Your task to perform on an android device: open app "Upside-Cash back on gas & food" (install if not already installed) and go to login screen Image 0: 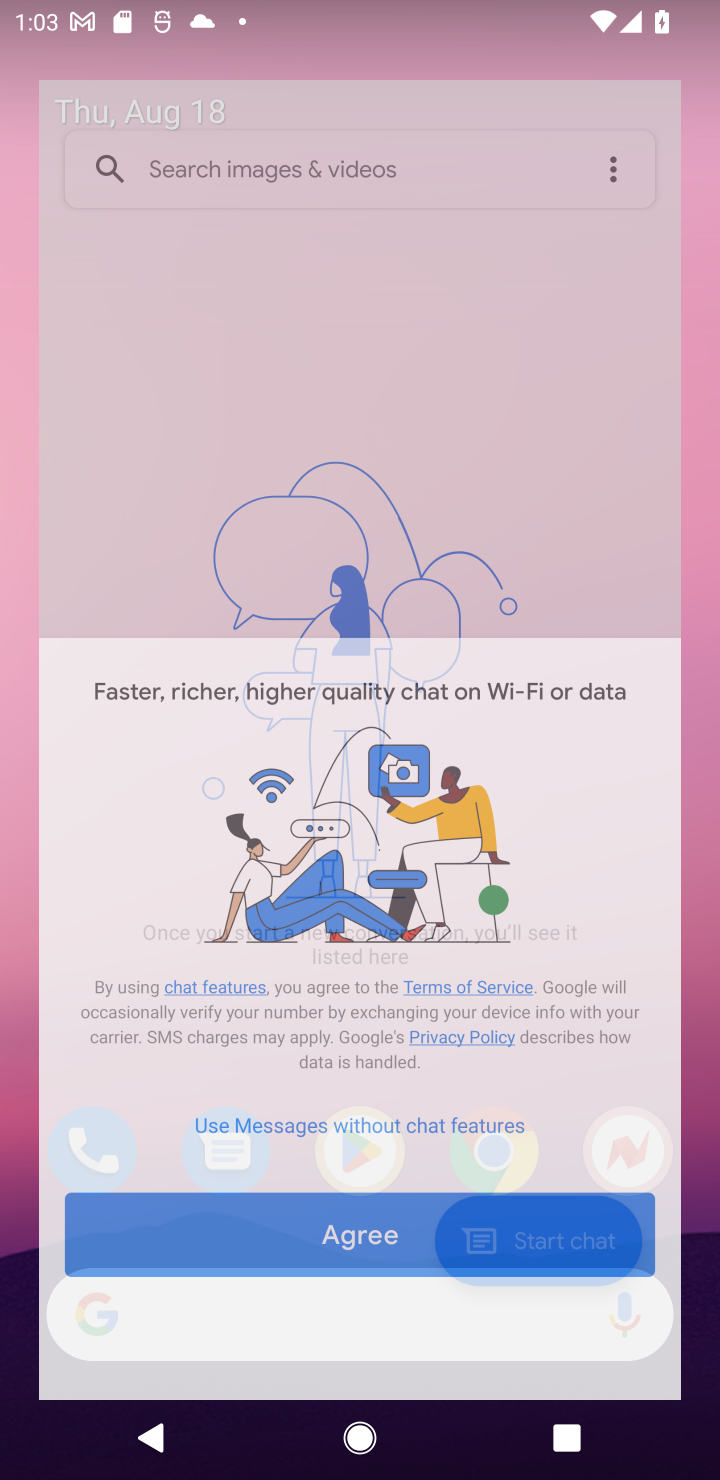
Step 0: click (349, 1128)
Your task to perform on an android device: open app "Upside-Cash back on gas & food" (install if not already installed) and go to login screen Image 1: 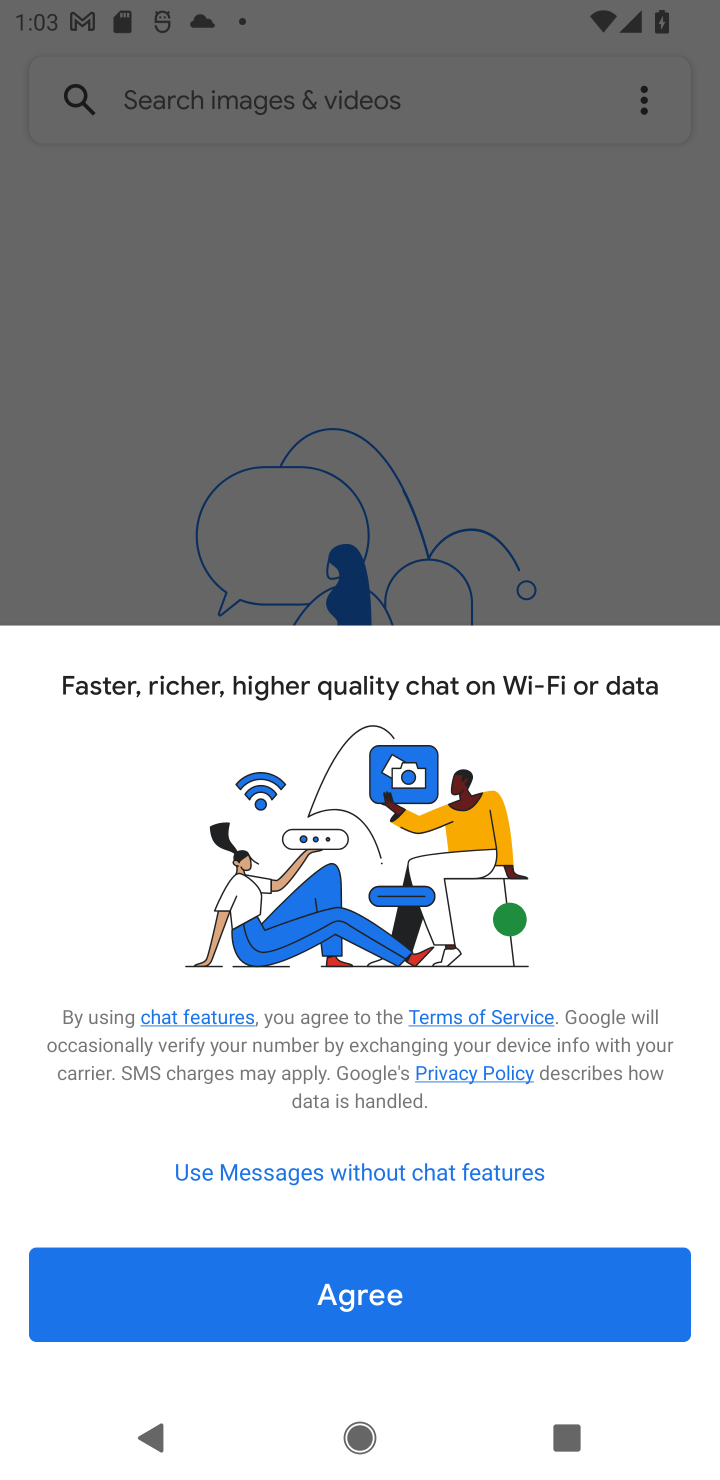
Step 1: press back button
Your task to perform on an android device: open app "Upside-Cash back on gas & food" (install if not already installed) and go to login screen Image 2: 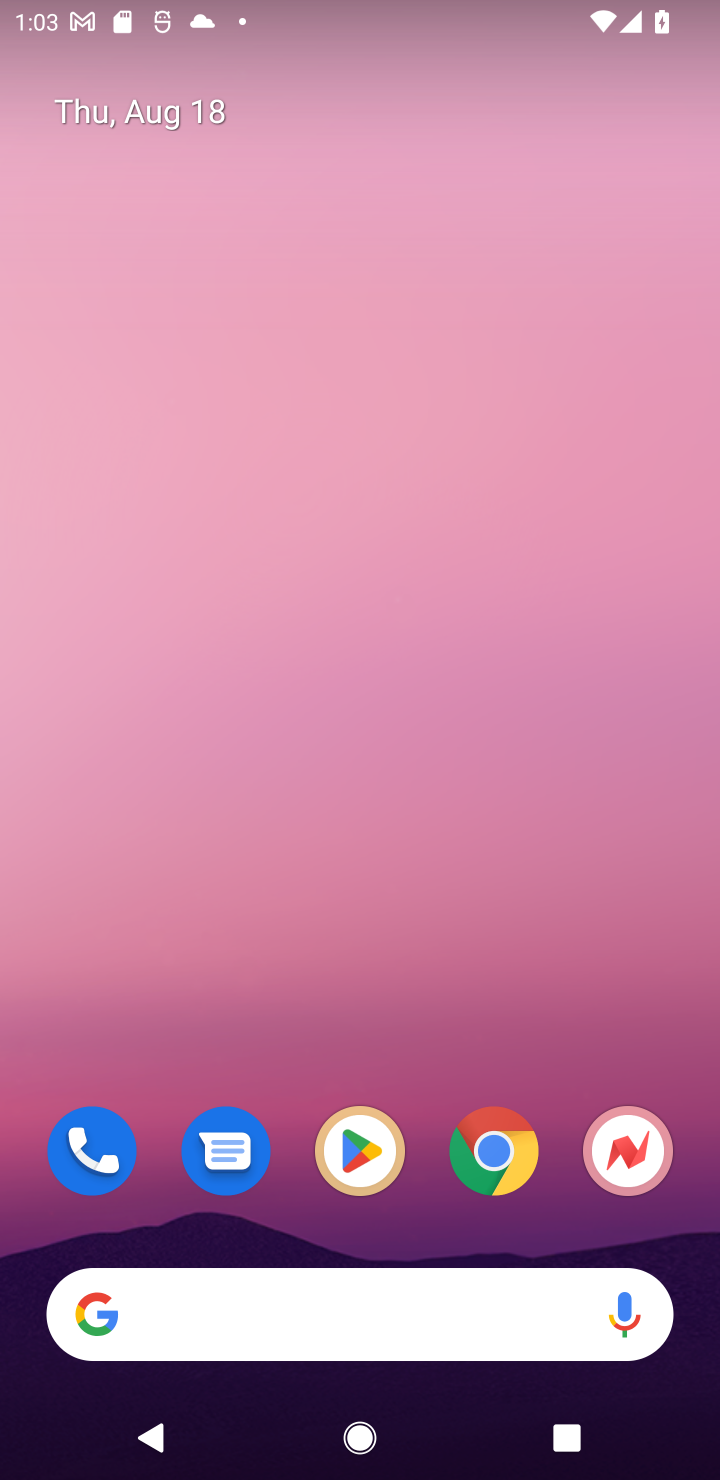
Step 2: click (359, 1151)
Your task to perform on an android device: open app "Upside-Cash back on gas & food" (install if not already installed) and go to login screen Image 3: 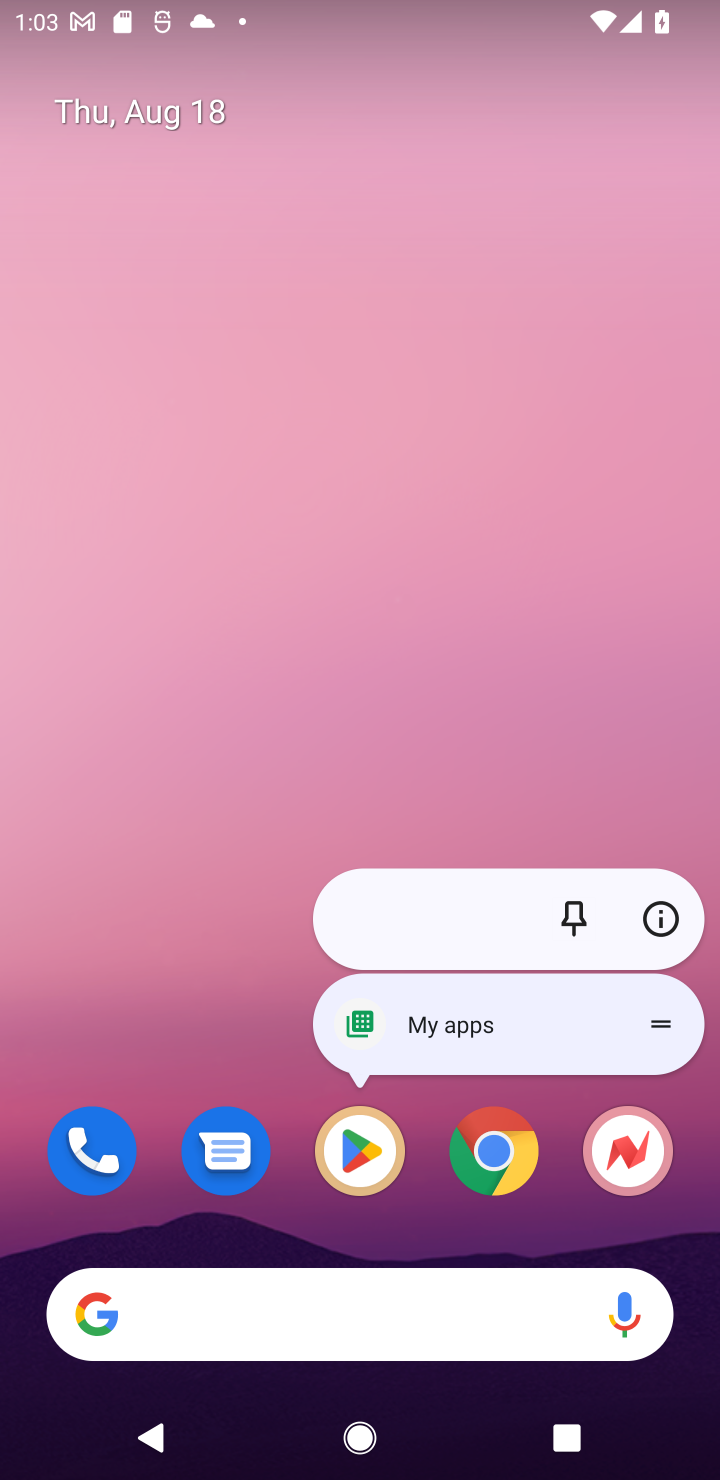
Step 3: click (359, 1157)
Your task to perform on an android device: open app "Upside-Cash back on gas & food" (install if not already installed) and go to login screen Image 4: 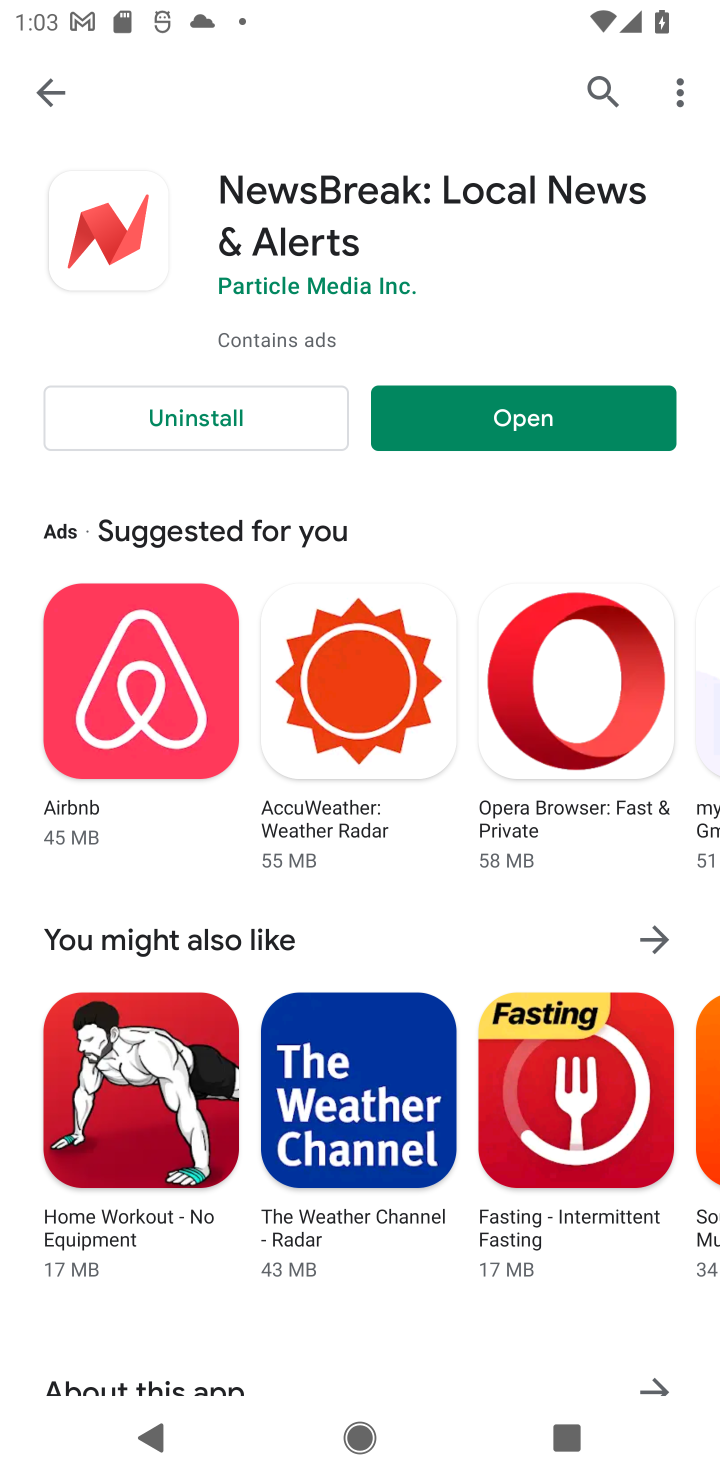
Step 4: click (39, 89)
Your task to perform on an android device: open app "Upside-Cash back on gas & food" (install if not already installed) and go to login screen Image 5: 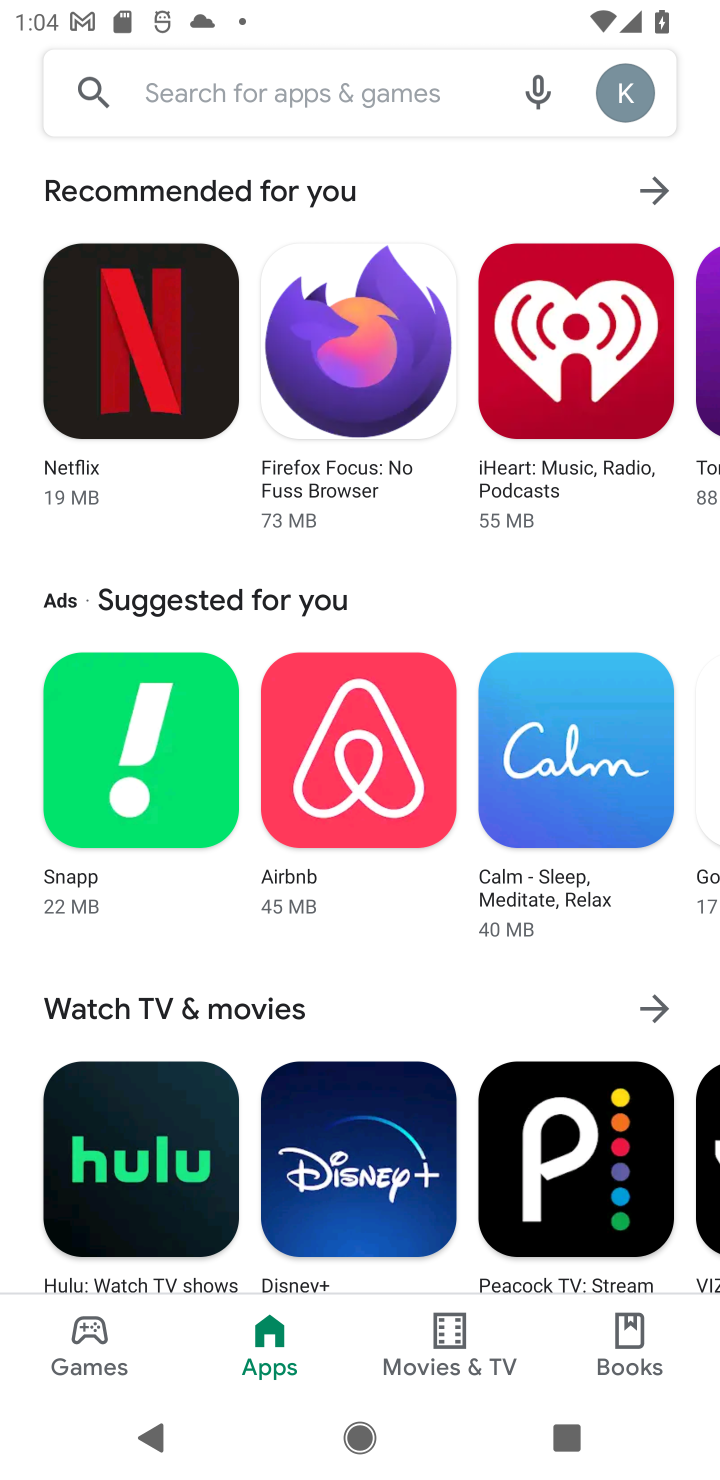
Step 5: click (277, 84)
Your task to perform on an android device: open app "Upside-Cash back on gas & food" (install if not already installed) and go to login screen Image 6: 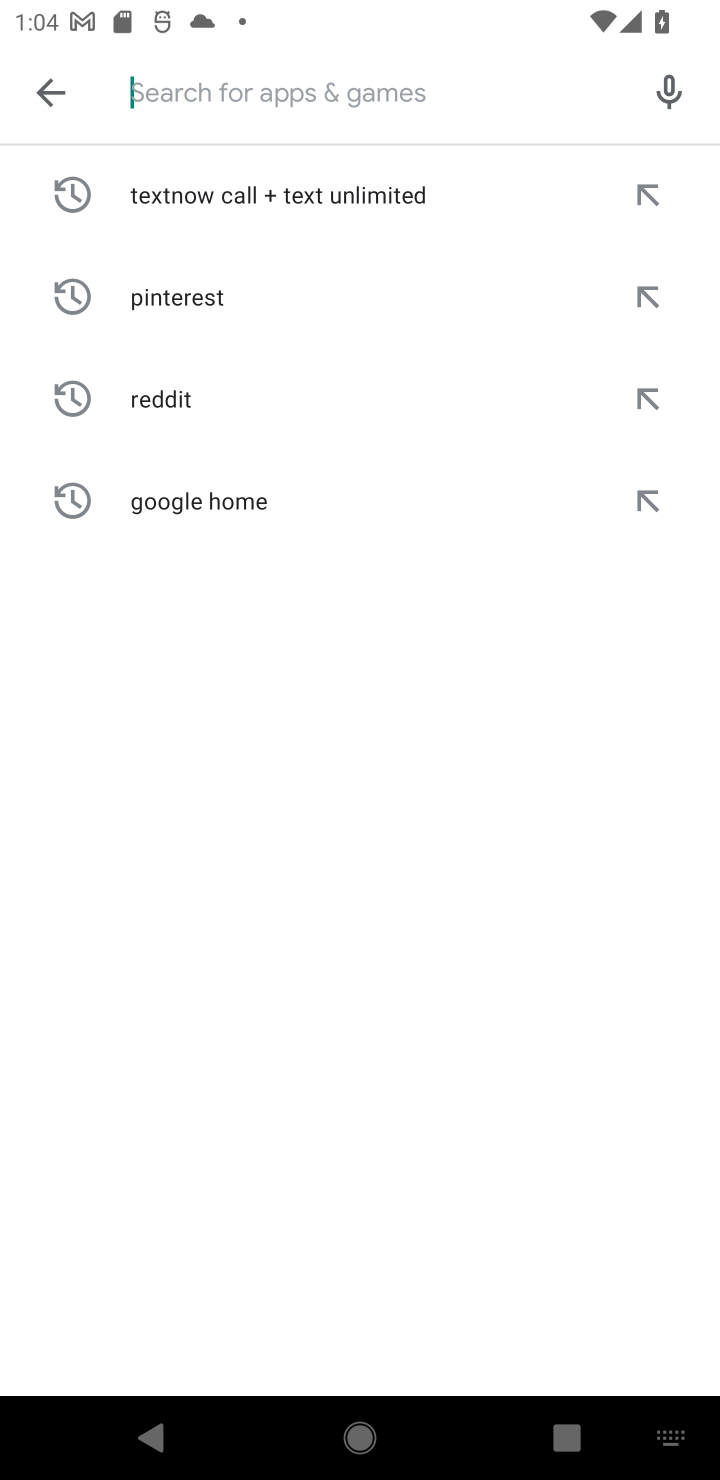
Step 6: type "Upside-Cash back on gas & food"
Your task to perform on an android device: open app "Upside-Cash back on gas & food" (install if not already installed) and go to login screen Image 7: 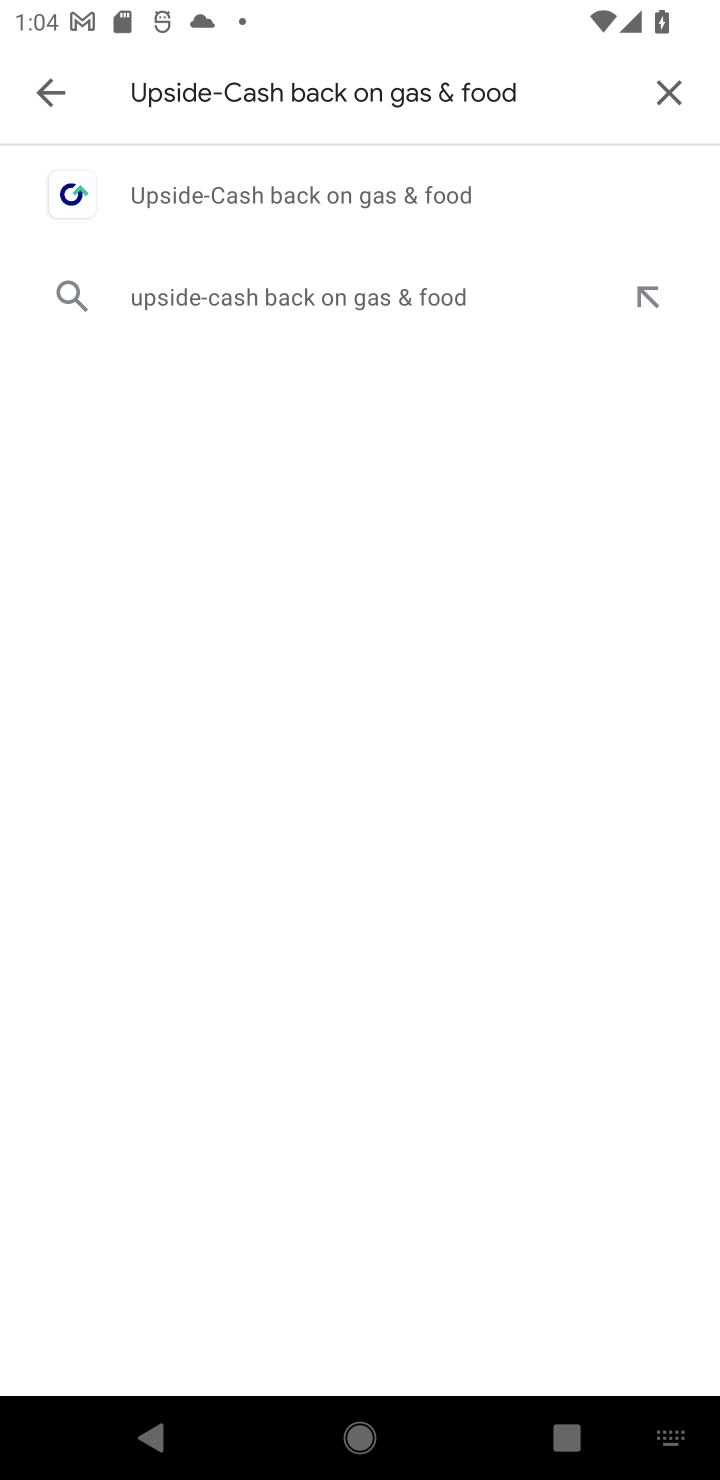
Step 7: click (428, 201)
Your task to perform on an android device: open app "Upside-Cash back on gas & food" (install if not already installed) and go to login screen Image 8: 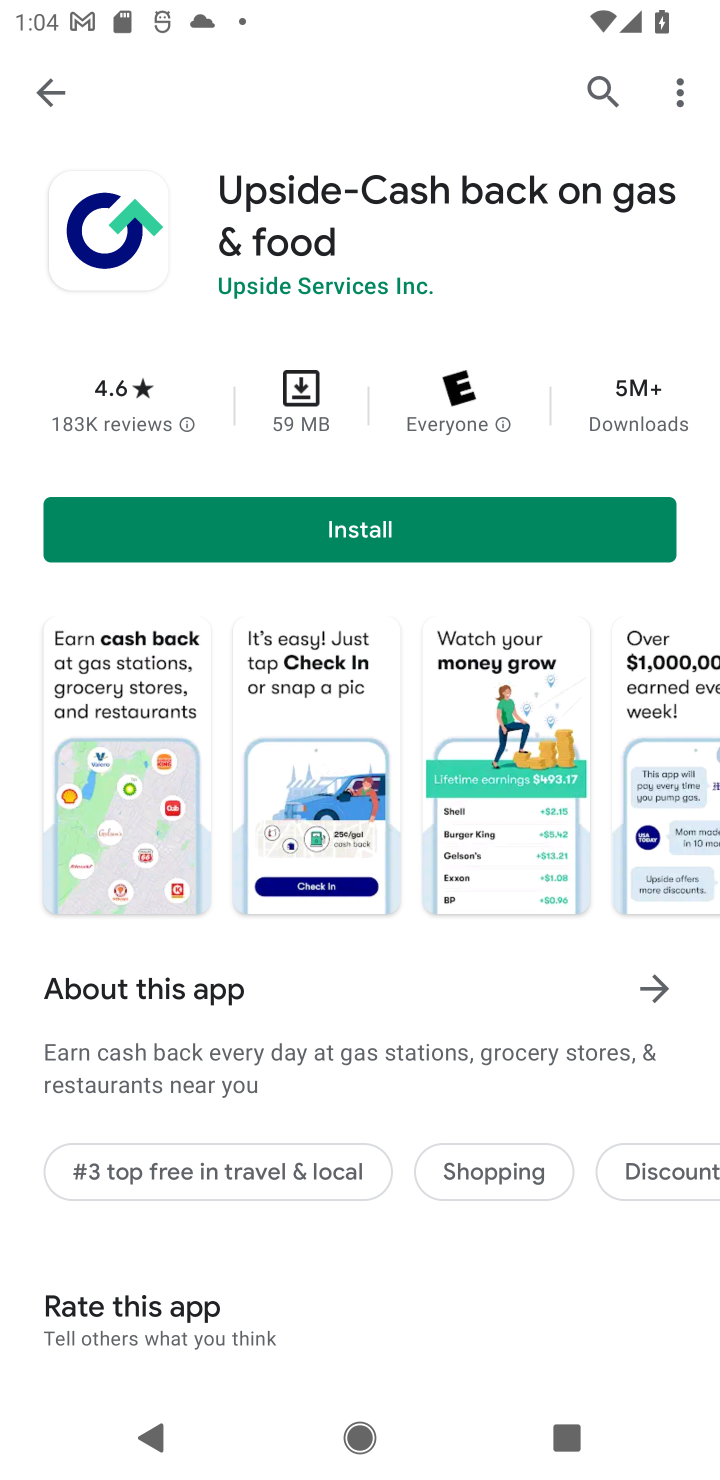
Step 8: click (318, 525)
Your task to perform on an android device: open app "Upside-Cash back on gas & food" (install if not already installed) and go to login screen Image 9: 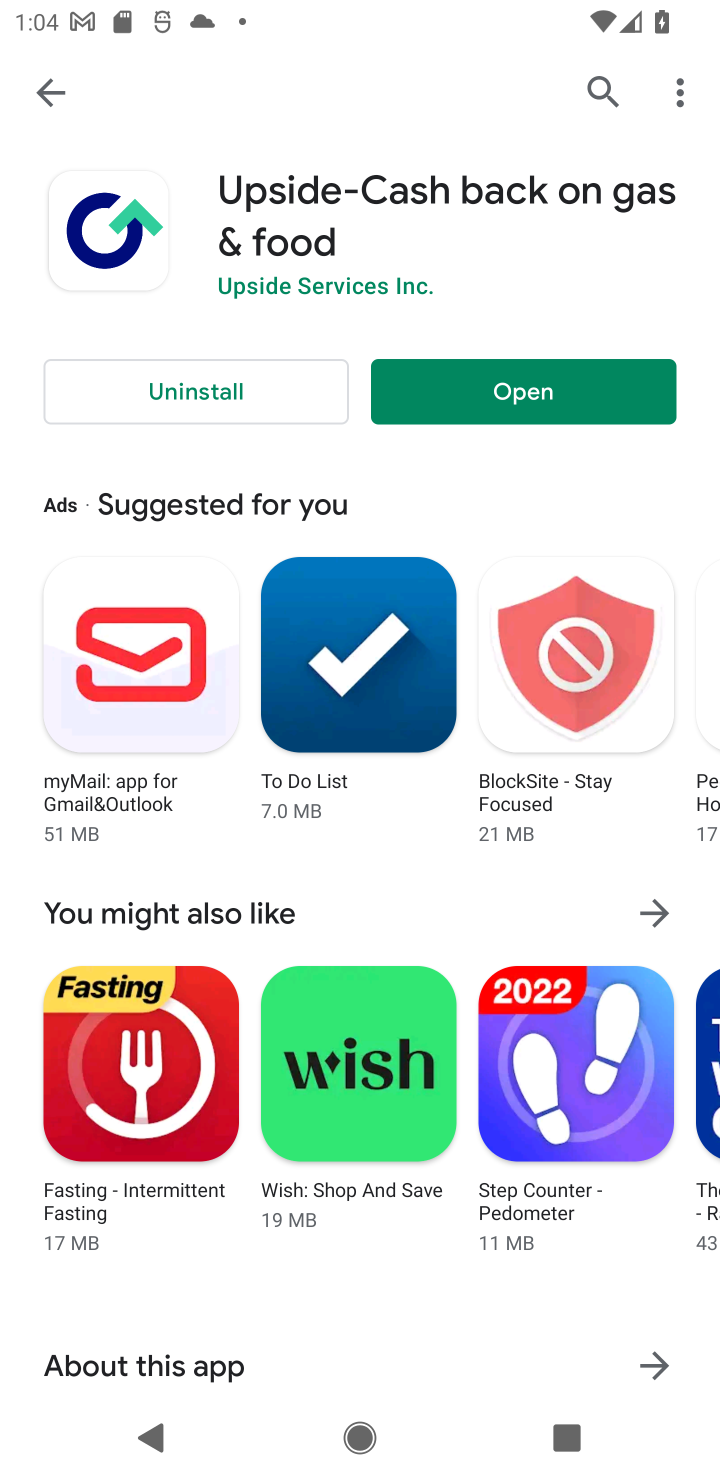
Step 9: click (503, 384)
Your task to perform on an android device: open app "Upside-Cash back on gas & food" (install if not already installed) and go to login screen Image 10: 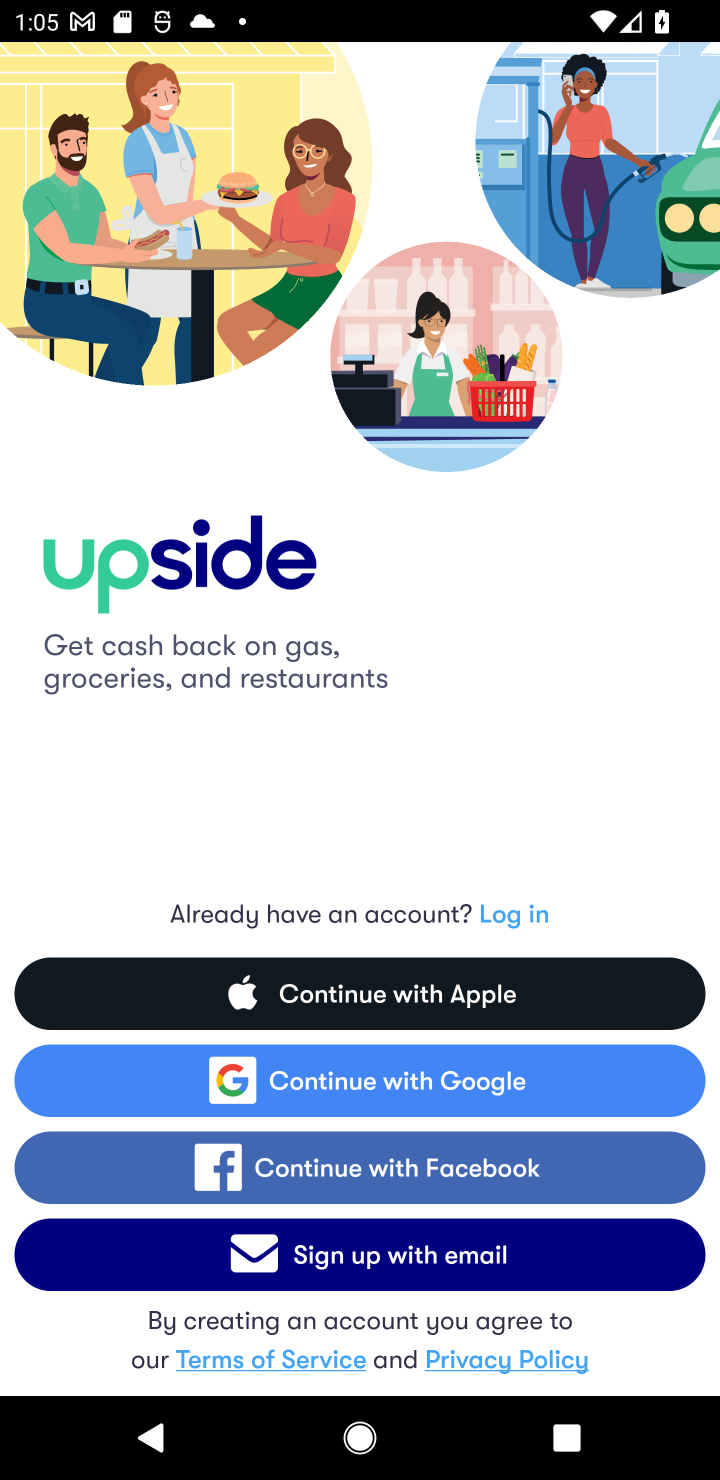
Step 10: click (511, 905)
Your task to perform on an android device: open app "Upside-Cash back on gas & food" (install if not already installed) and go to login screen Image 11: 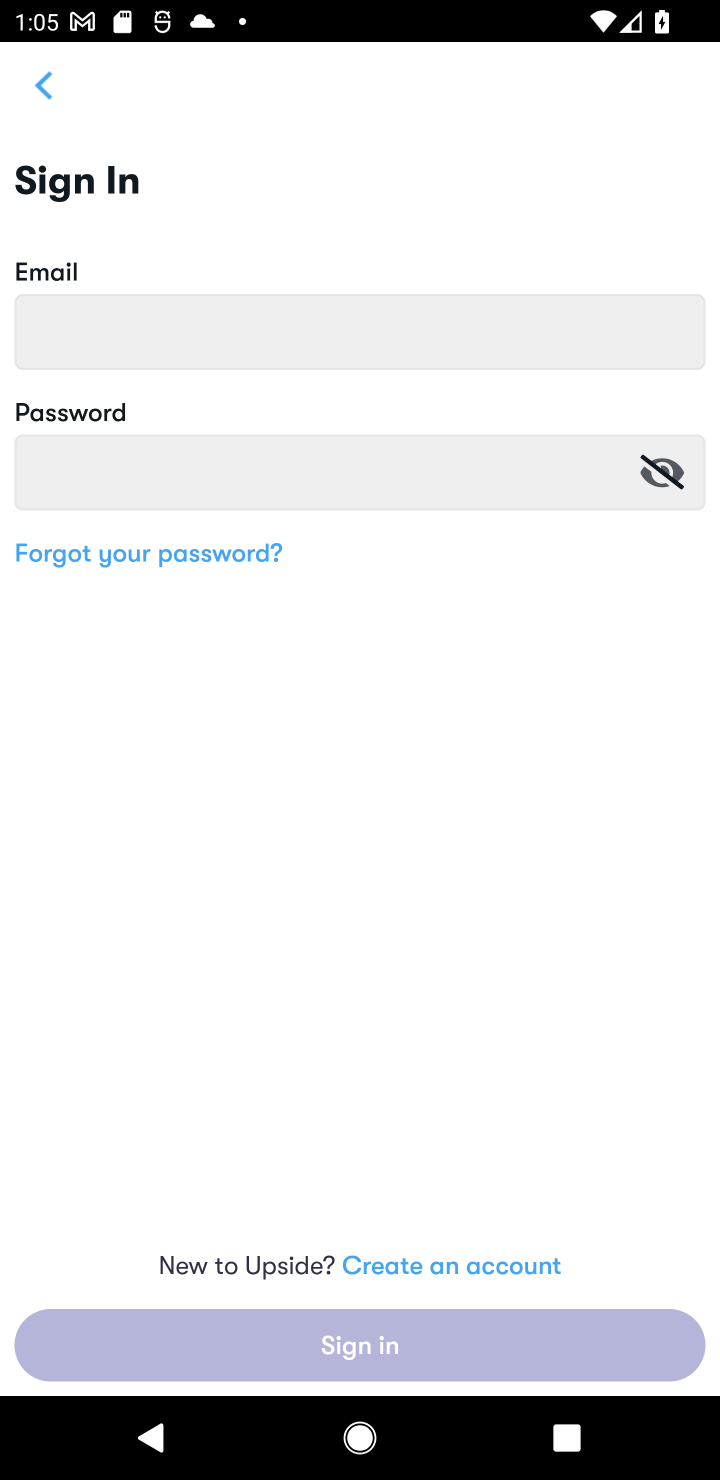
Step 11: task complete